Your task to perform on an android device: open chrome privacy settings Image 0: 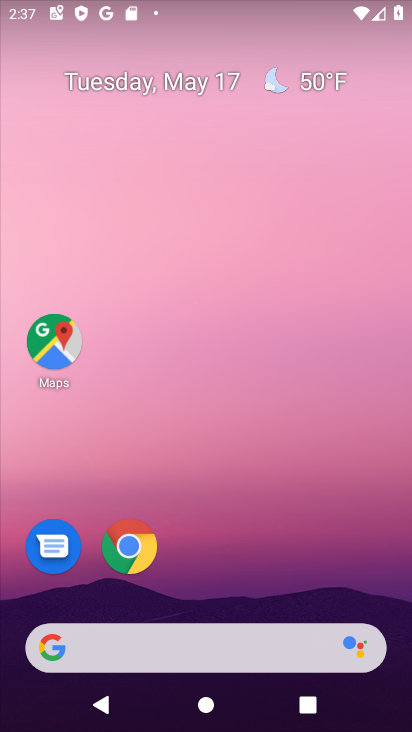
Step 0: click (146, 550)
Your task to perform on an android device: open chrome privacy settings Image 1: 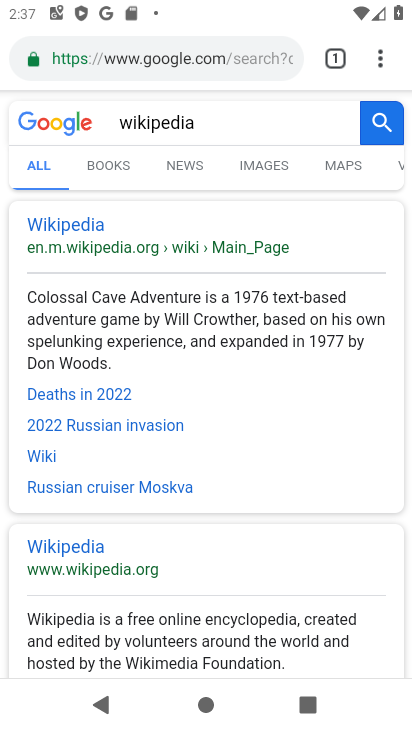
Step 1: click (381, 58)
Your task to perform on an android device: open chrome privacy settings Image 2: 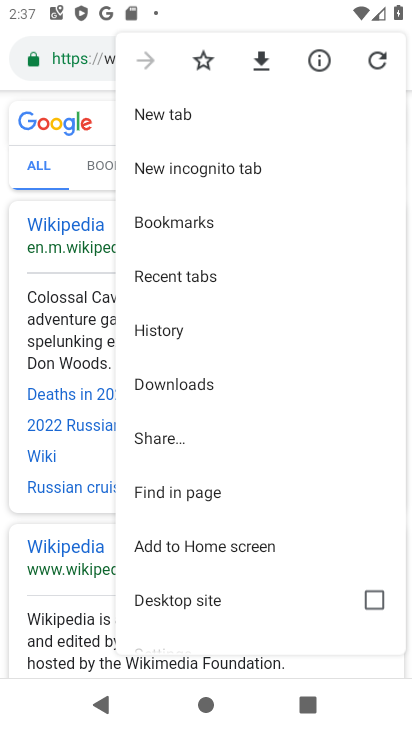
Step 2: drag from (185, 615) to (240, 261)
Your task to perform on an android device: open chrome privacy settings Image 3: 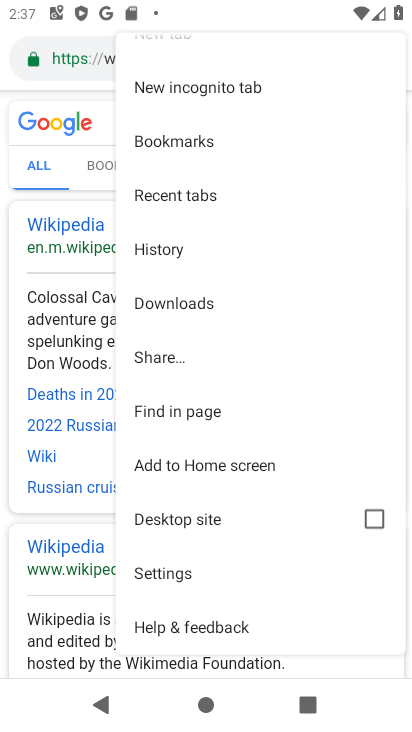
Step 3: click (165, 576)
Your task to perform on an android device: open chrome privacy settings Image 4: 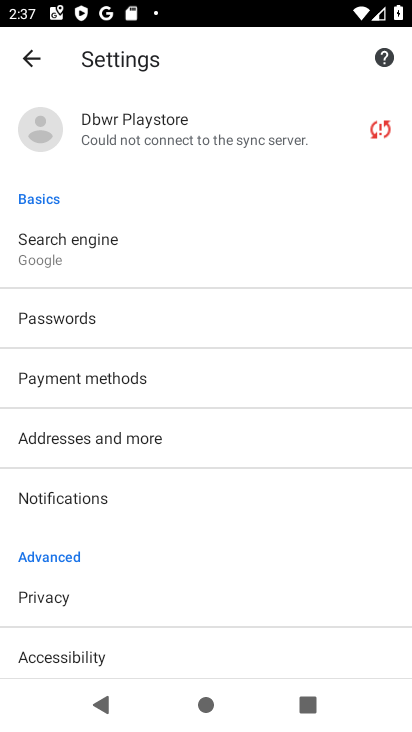
Step 4: click (65, 599)
Your task to perform on an android device: open chrome privacy settings Image 5: 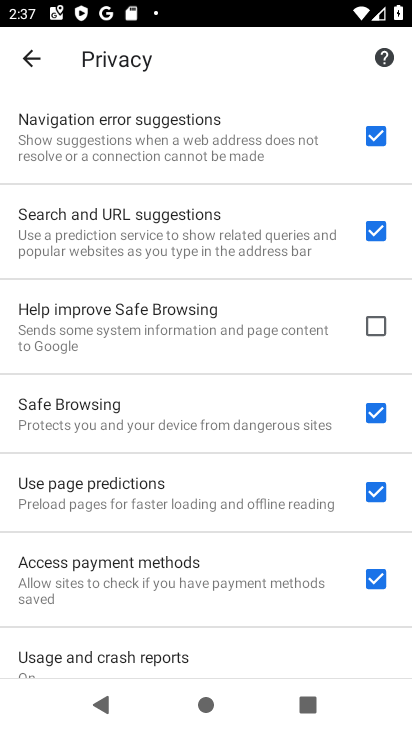
Step 5: task complete